Your task to perform on an android device: toggle location history Image 0: 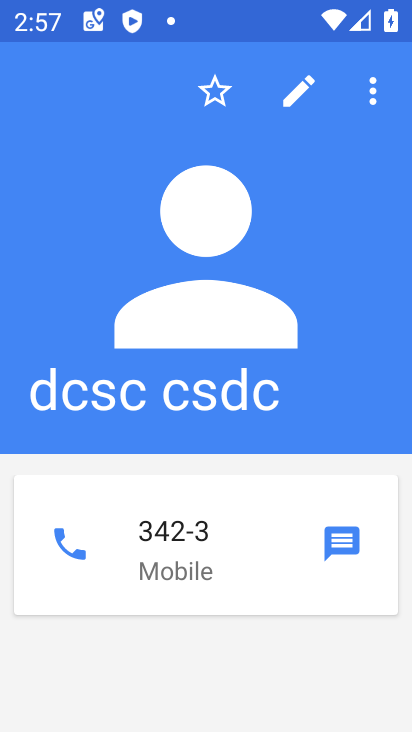
Step 0: press home button
Your task to perform on an android device: toggle location history Image 1: 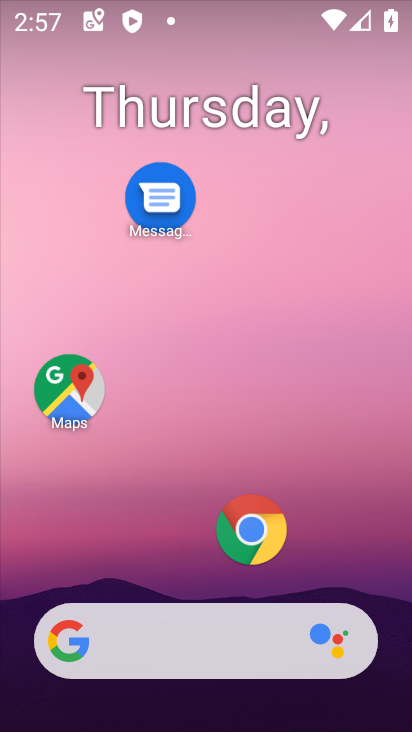
Step 1: drag from (200, 574) to (287, 187)
Your task to perform on an android device: toggle location history Image 2: 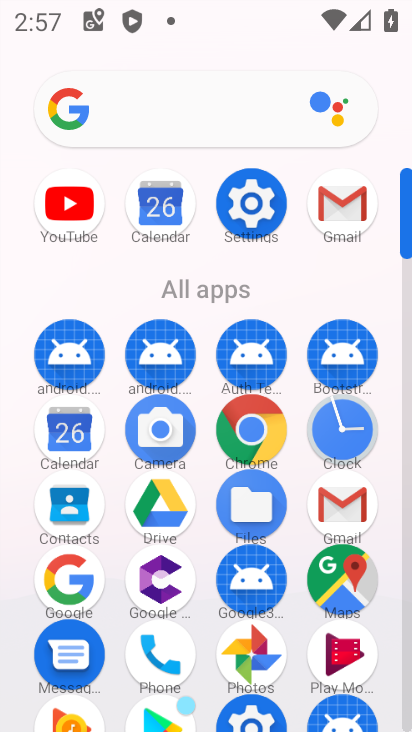
Step 2: click (257, 210)
Your task to perform on an android device: toggle location history Image 3: 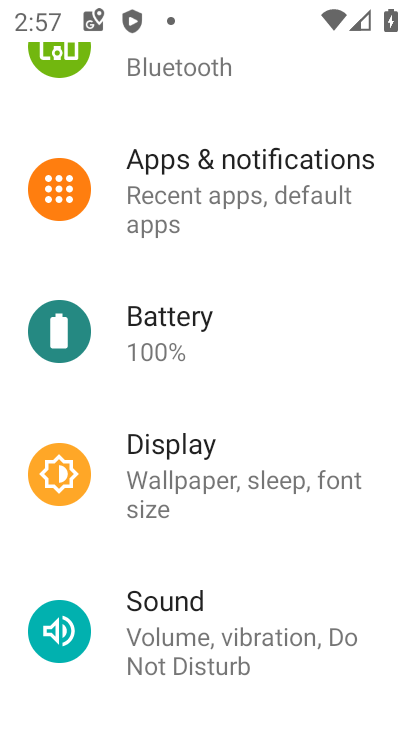
Step 3: drag from (48, 542) to (188, 42)
Your task to perform on an android device: toggle location history Image 4: 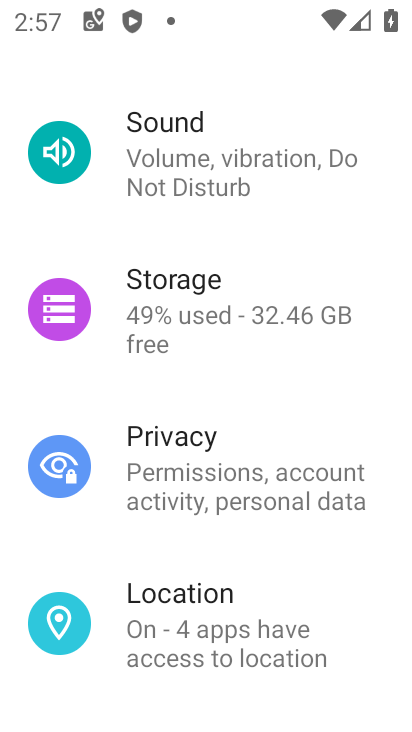
Step 4: click (202, 616)
Your task to perform on an android device: toggle location history Image 5: 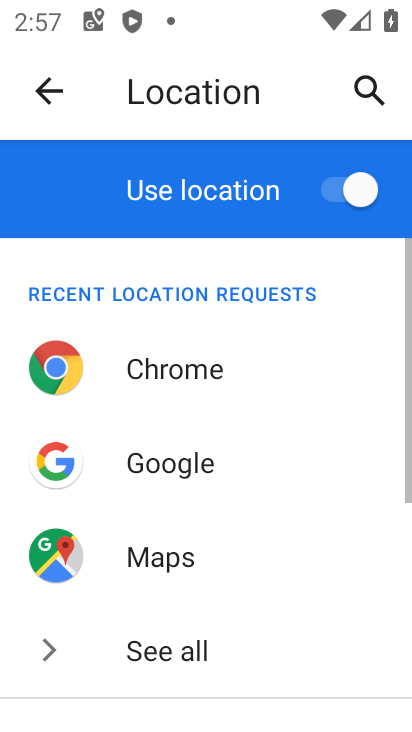
Step 5: drag from (208, 588) to (298, 91)
Your task to perform on an android device: toggle location history Image 6: 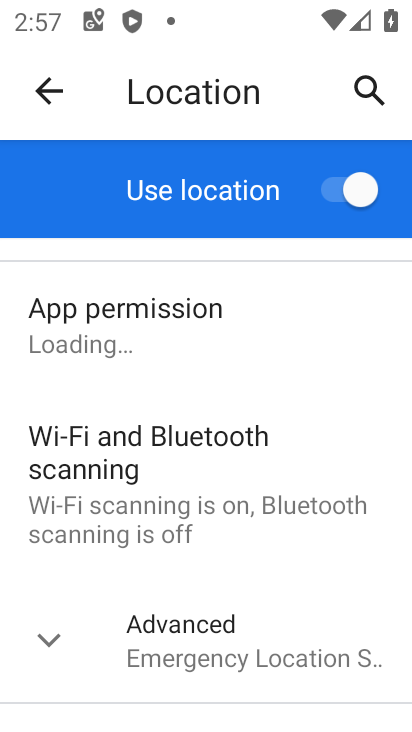
Step 6: click (167, 639)
Your task to perform on an android device: toggle location history Image 7: 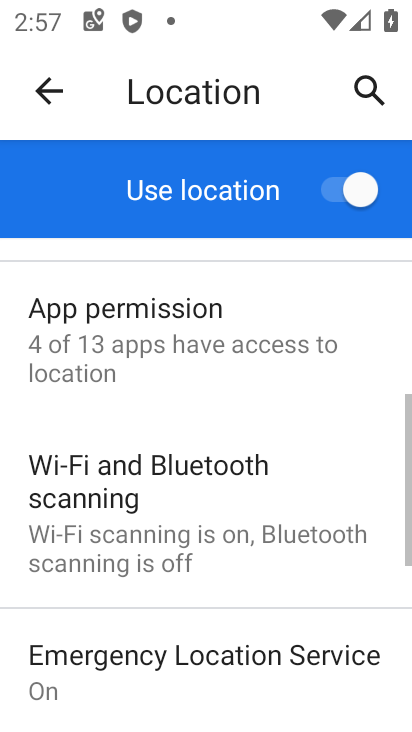
Step 7: drag from (183, 612) to (271, 181)
Your task to perform on an android device: toggle location history Image 8: 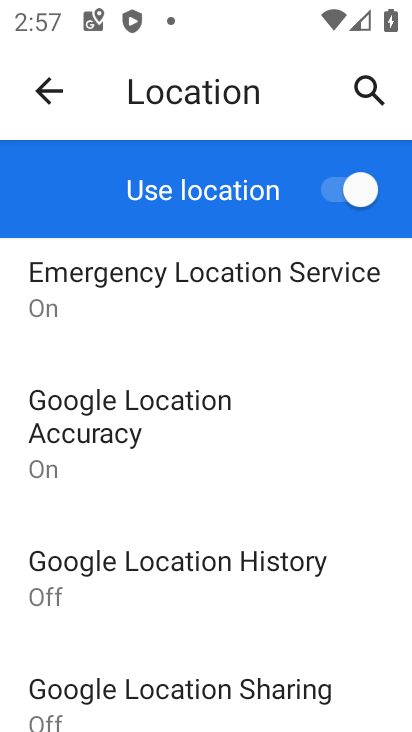
Step 8: click (116, 619)
Your task to perform on an android device: toggle location history Image 9: 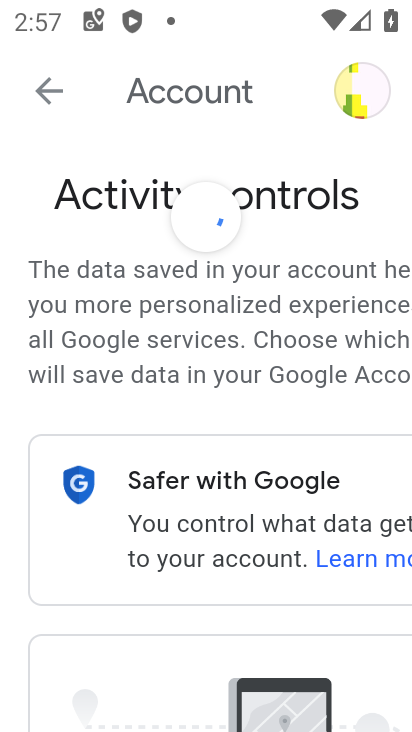
Step 9: drag from (247, 388) to (322, 140)
Your task to perform on an android device: toggle location history Image 10: 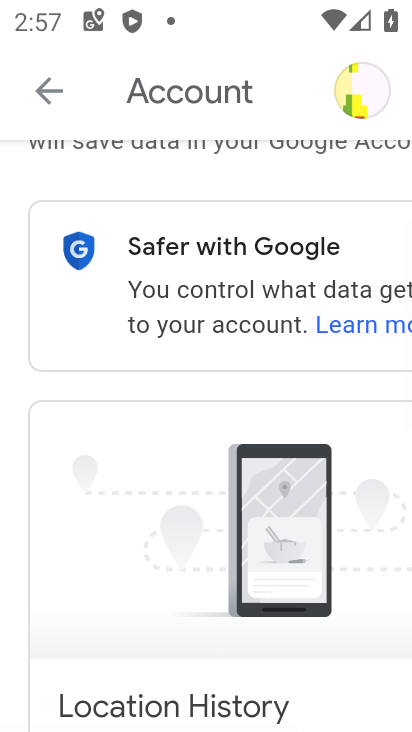
Step 10: drag from (241, 608) to (378, 242)
Your task to perform on an android device: toggle location history Image 11: 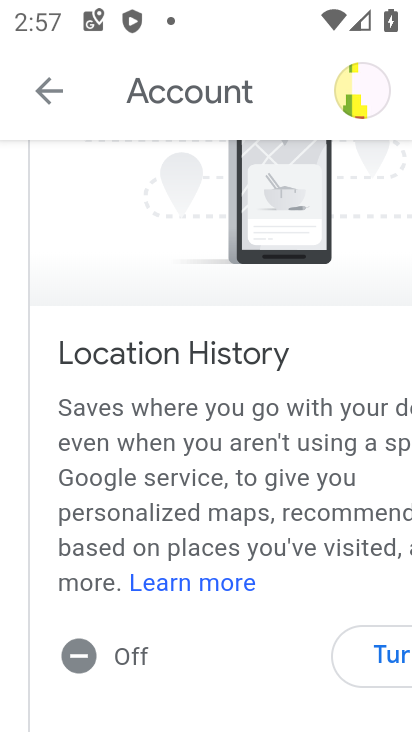
Step 11: click (376, 652)
Your task to perform on an android device: toggle location history Image 12: 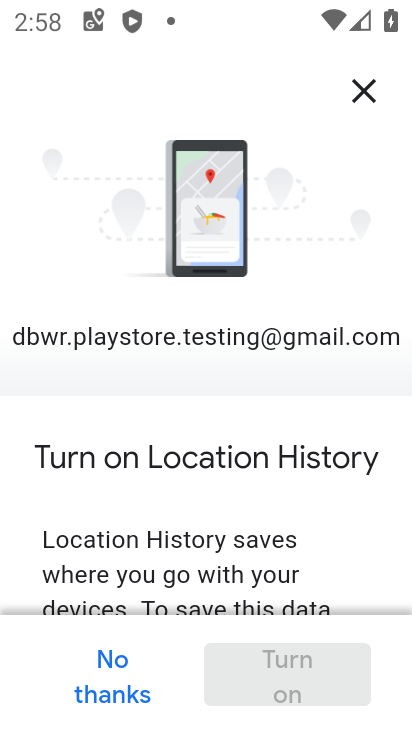
Step 12: click (287, 684)
Your task to perform on an android device: toggle location history Image 13: 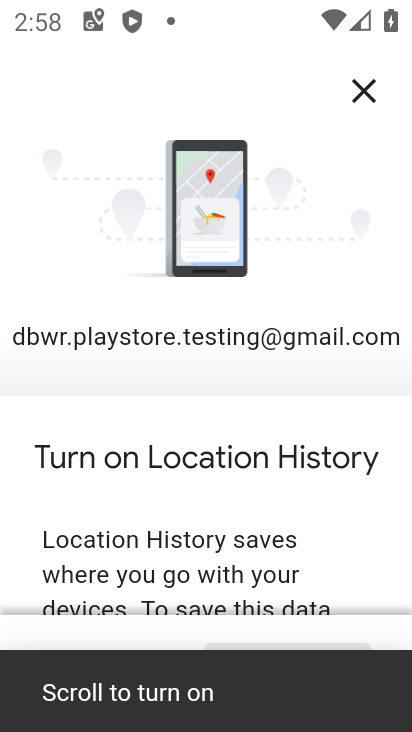
Step 13: task complete